Your task to perform on an android device: turn off smart reply in the gmail app Image 0: 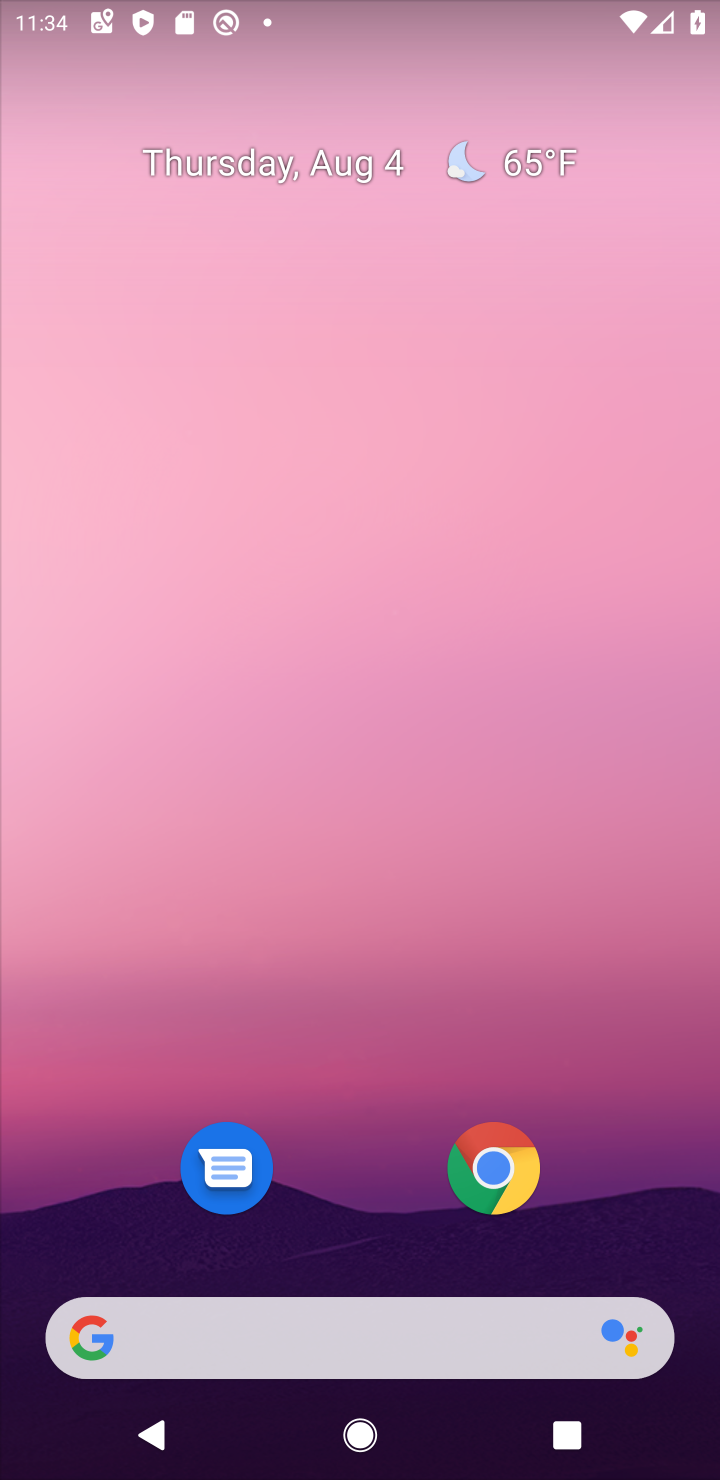
Step 0: drag from (625, 1153) to (189, 69)
Your task to perform on an android device: turn off smart reply in the gmail app Image 1: 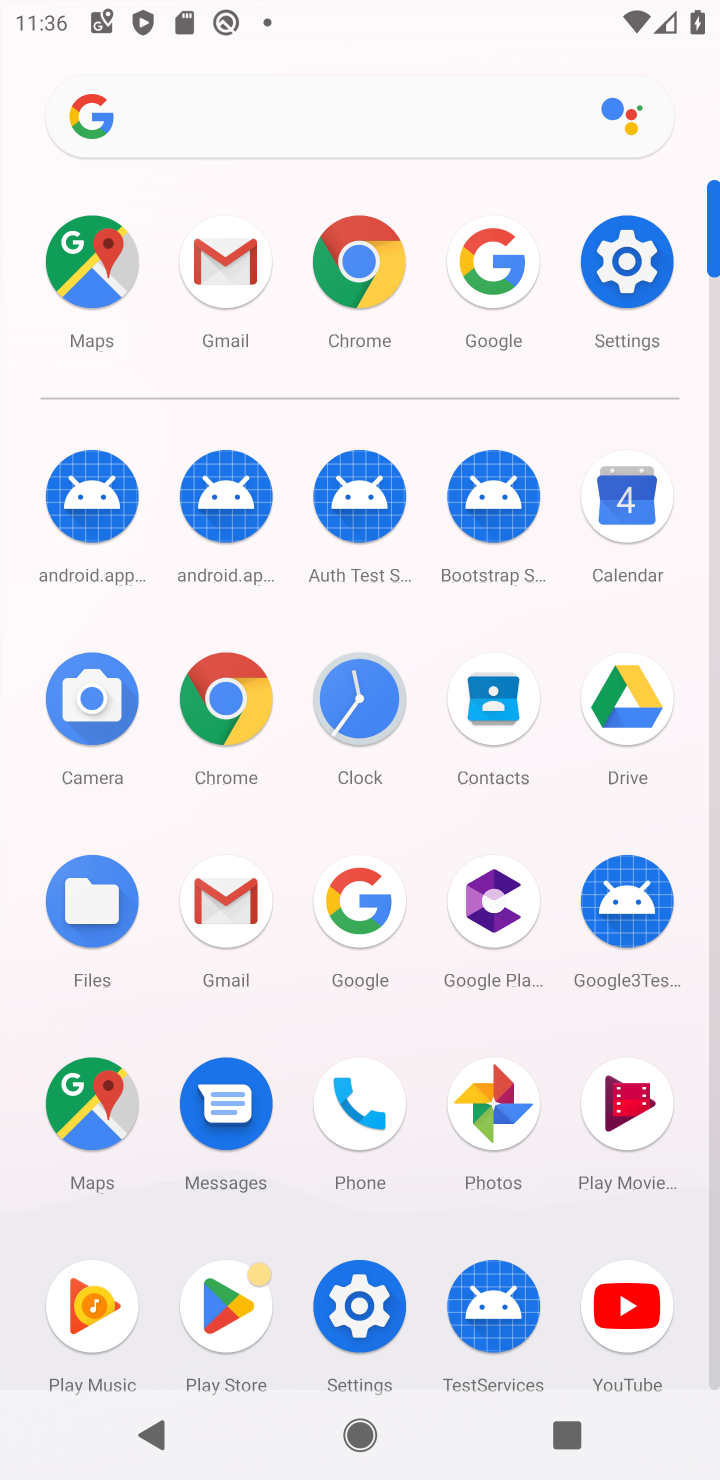
Step 1: click (199, 923)
Your task to perform on an android device: turn off smart reply in the gmail app Image 2: 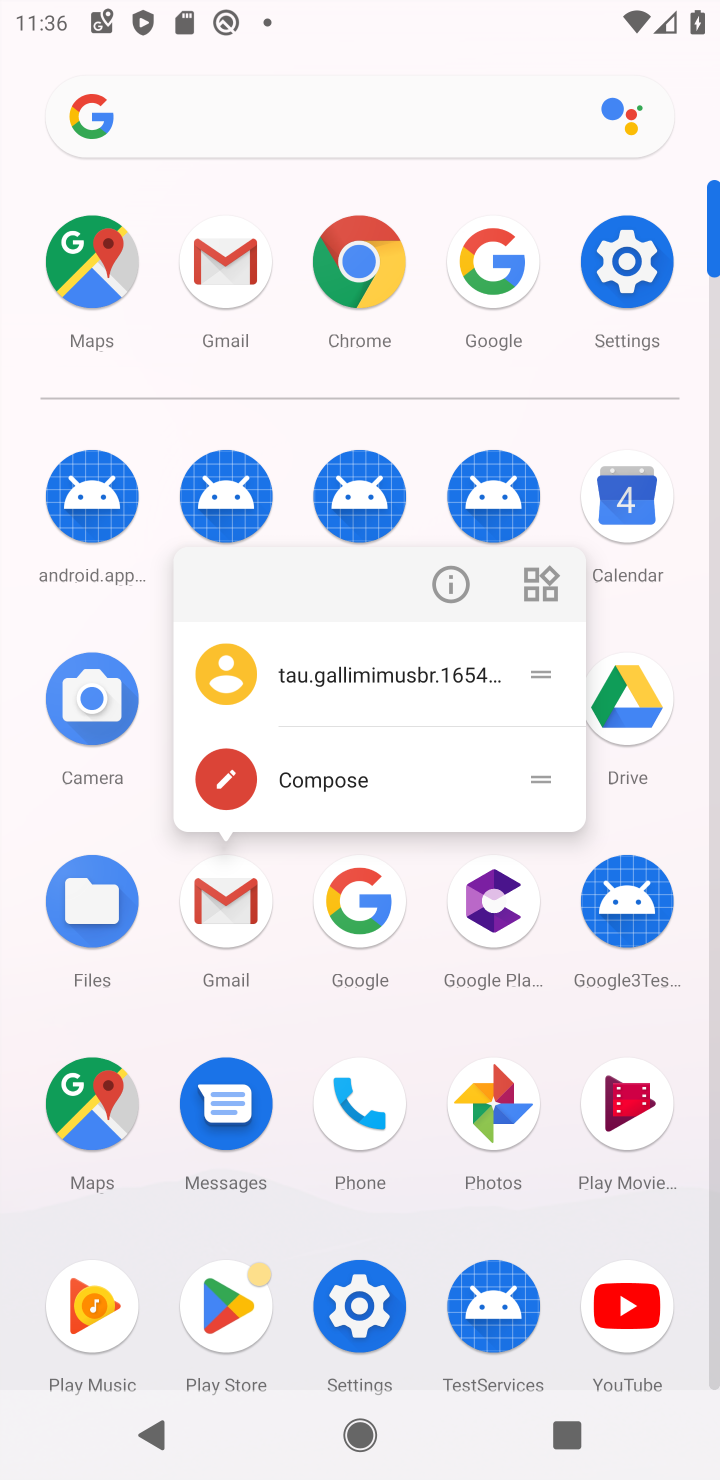
Step 2: click (199, 923)
Your task to perform on an android device: turn off smart reply in the gmail app Image 3: 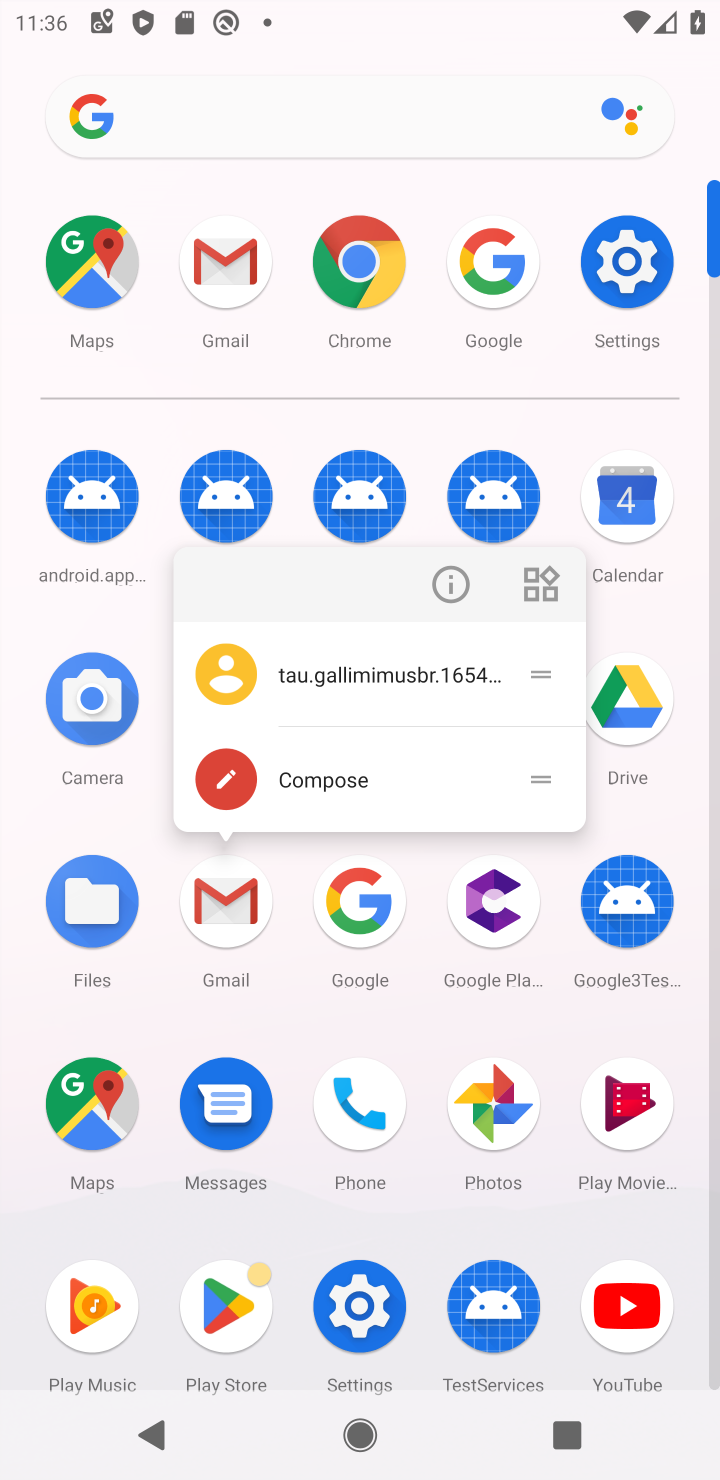
Step 3: click (199, 923)
Your task to perform on an android device: turn off smart reply in the gmail app Image 4: 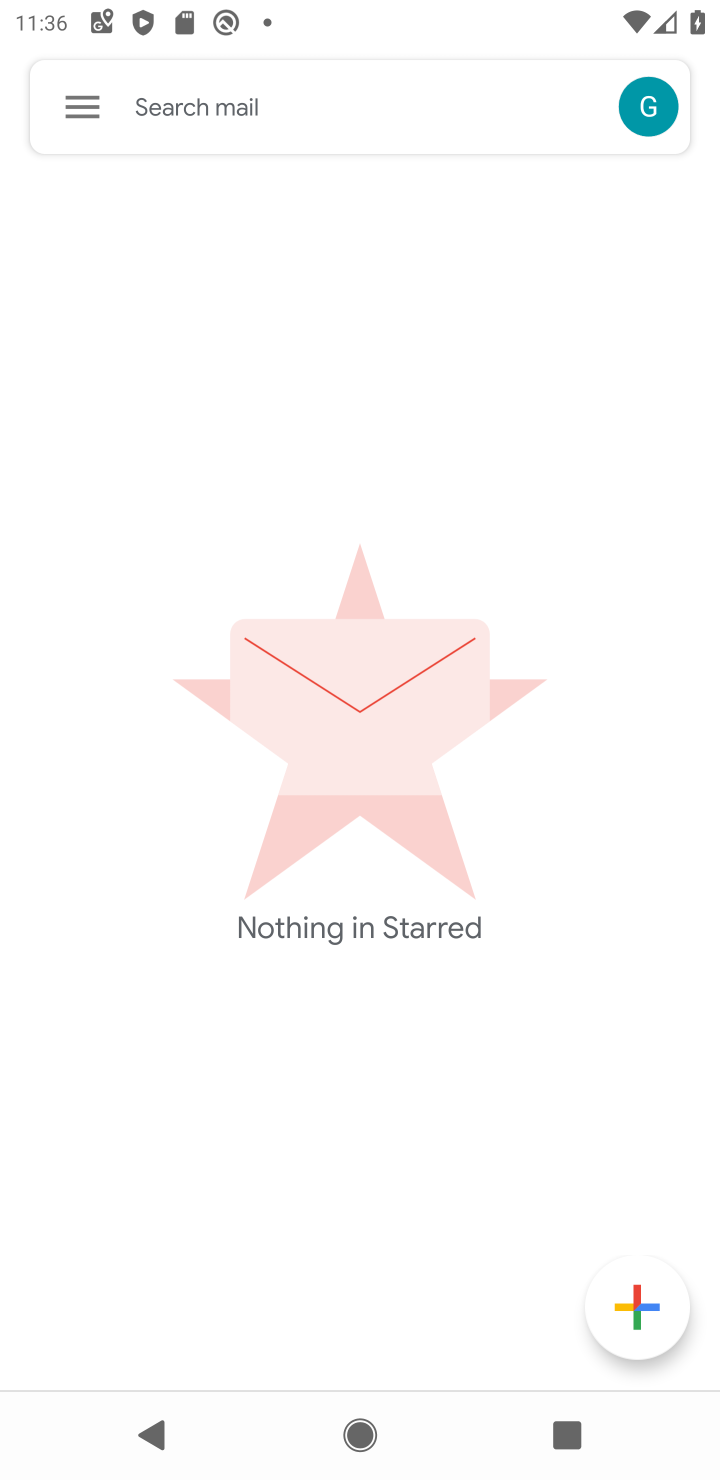
Step 4: click (77, 92)
Your task to perform on an android device: turn off smart reply in the gmail app Image 5: 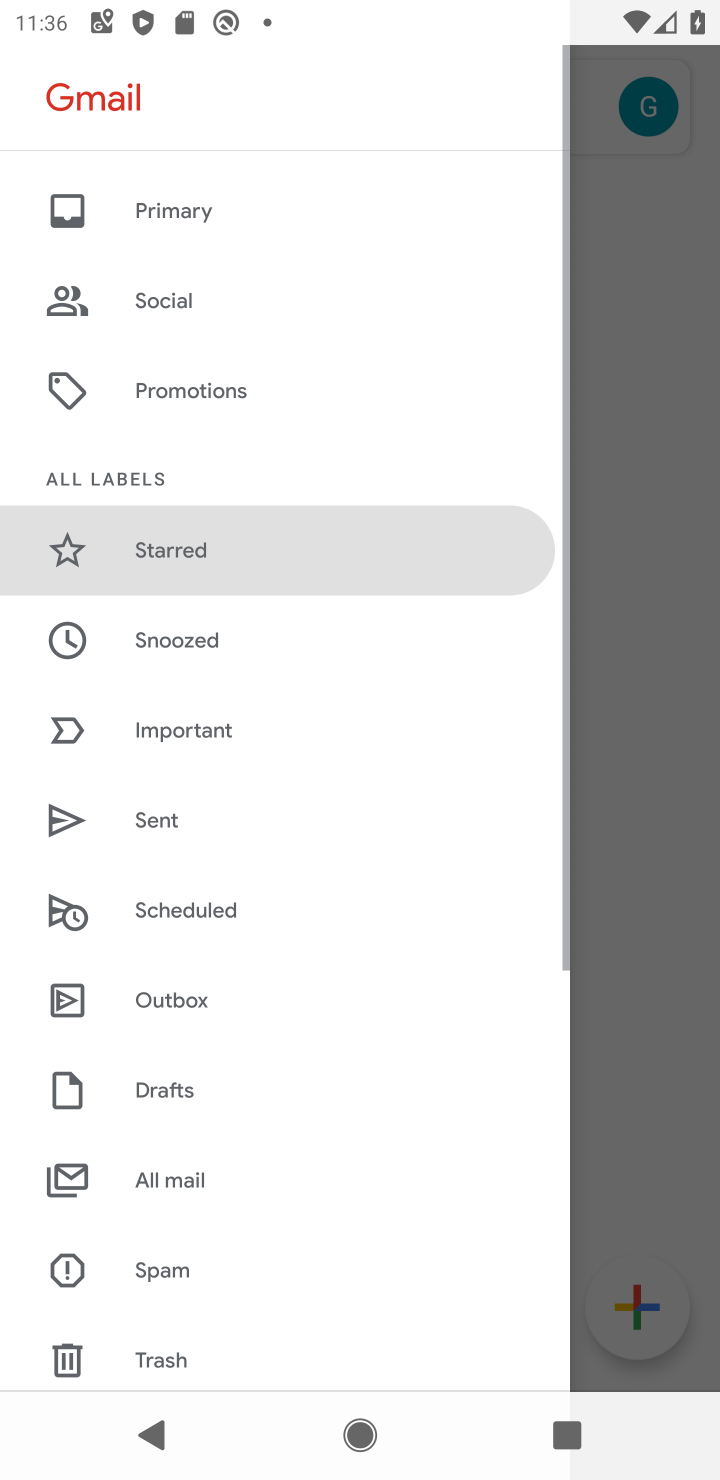
Step 5: drag from (191, 1297) to (479, 57)
Your task to perform on an android device: turn off smart reply in the gmail app Image 6: 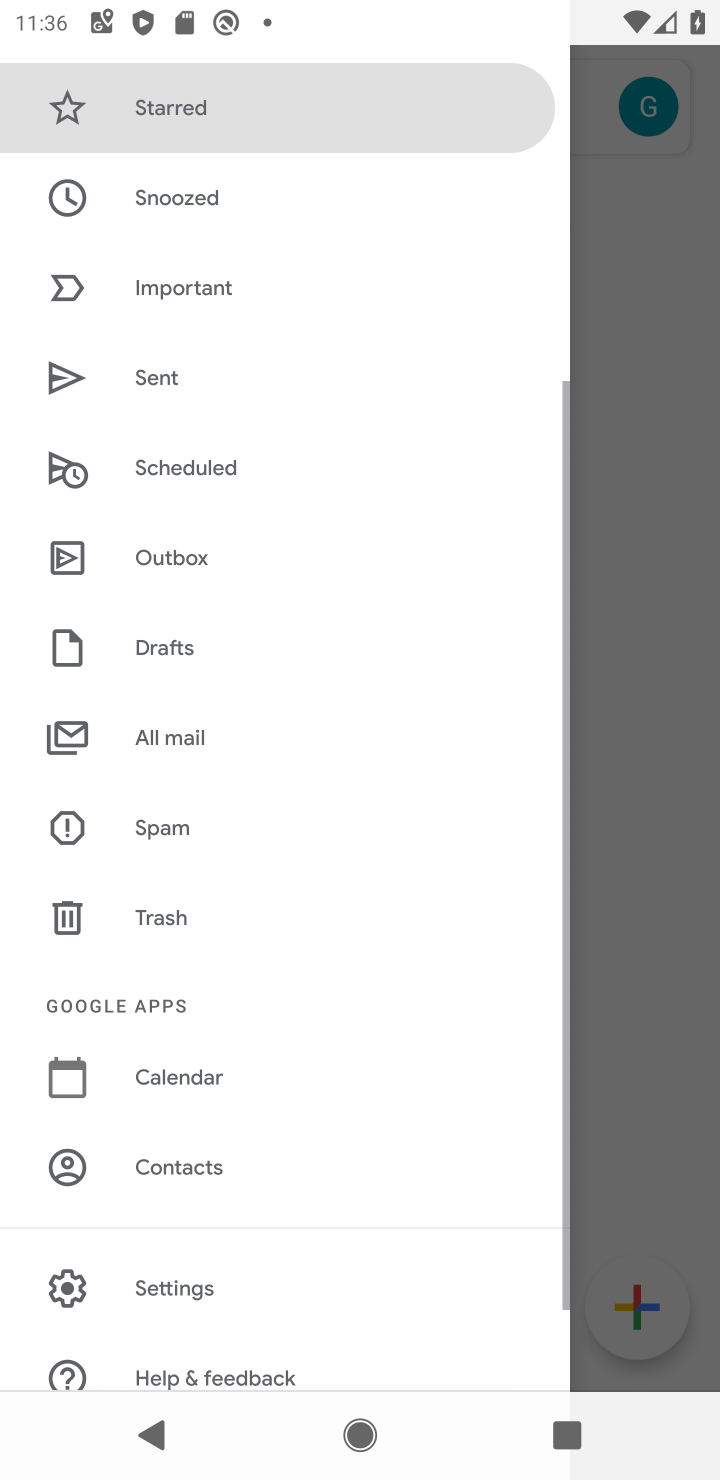
Step 6: click (168, 1237)
Your task to perform on an android device: turn off smart reply in the gmail app Image 7: 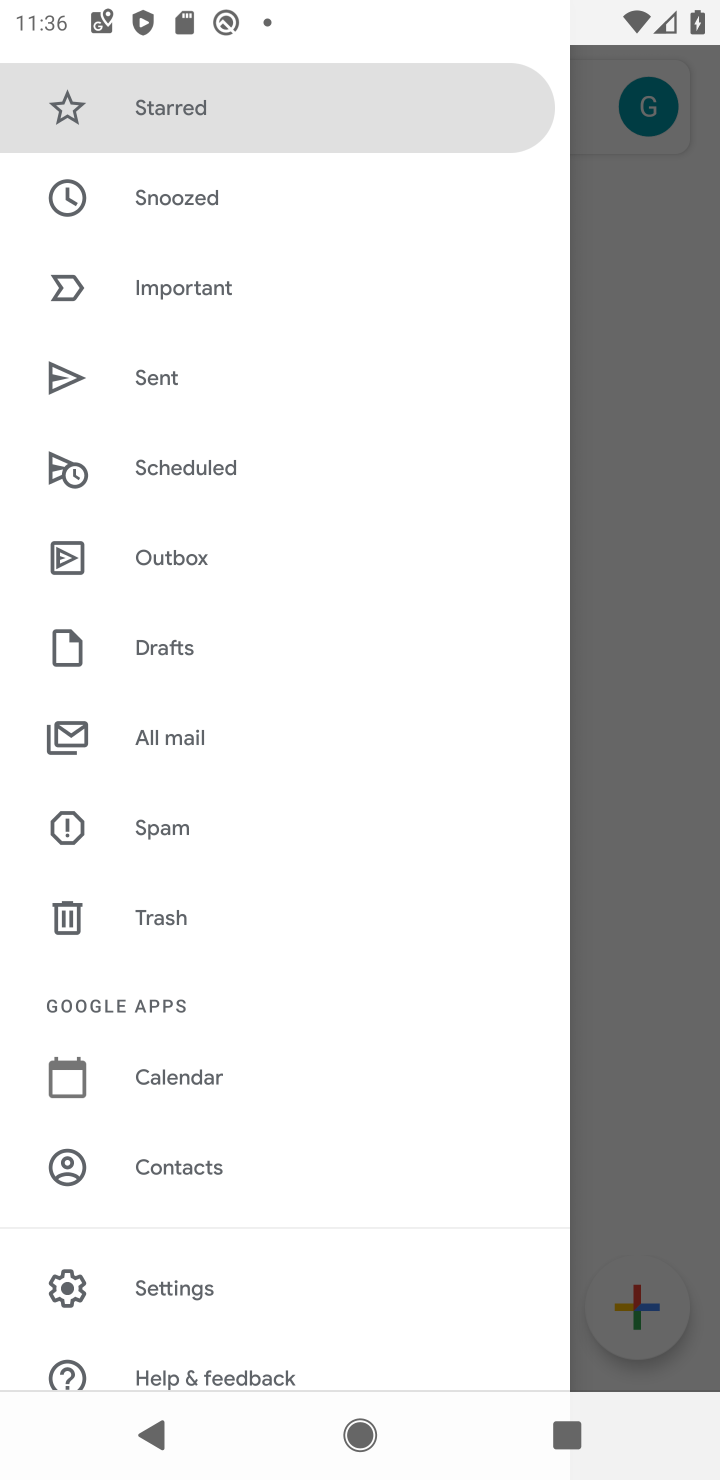
Step 7: click (205, 1298)
Your task to perform on an android device: turn off smart reply in the gmail app Image 8: 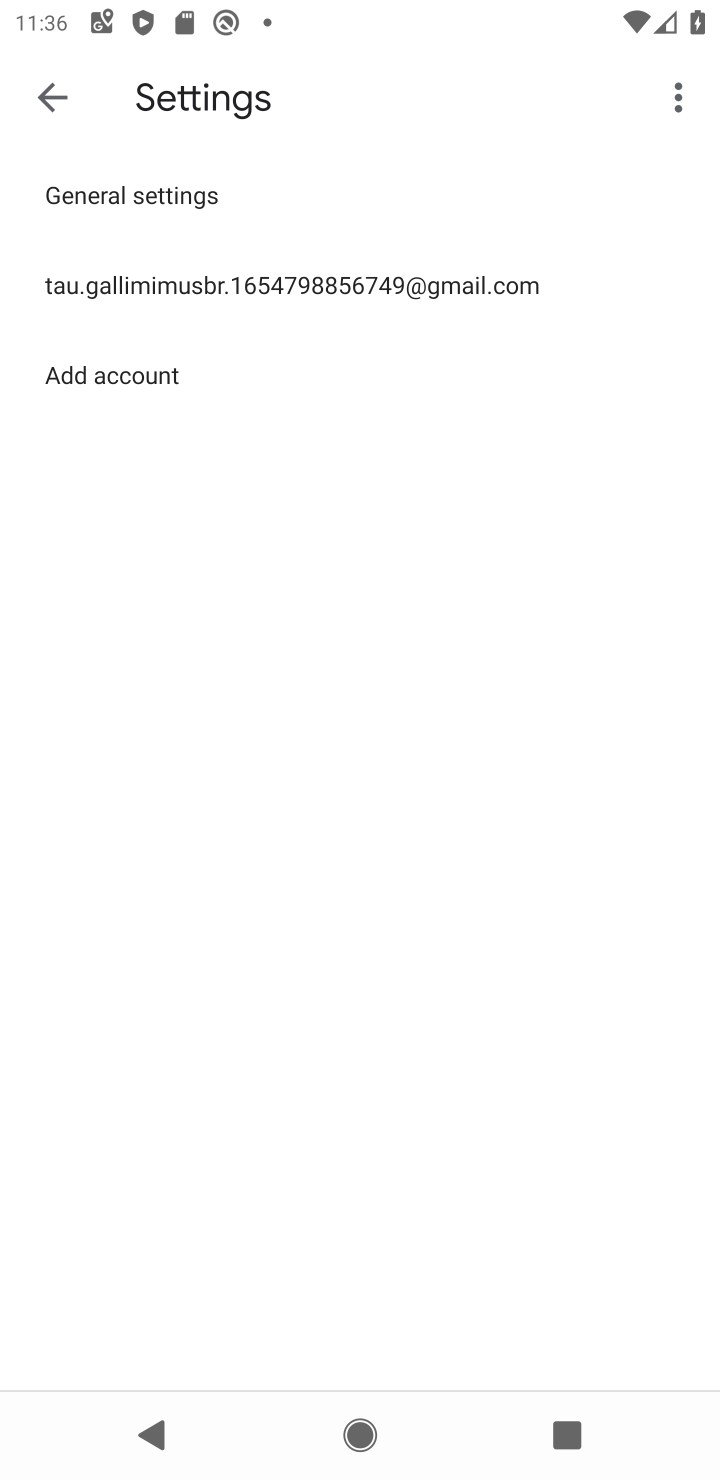
Step 8: click (380, 269)
Your task to perform on an android device: turn off smart reply in the gmail app Image 9: 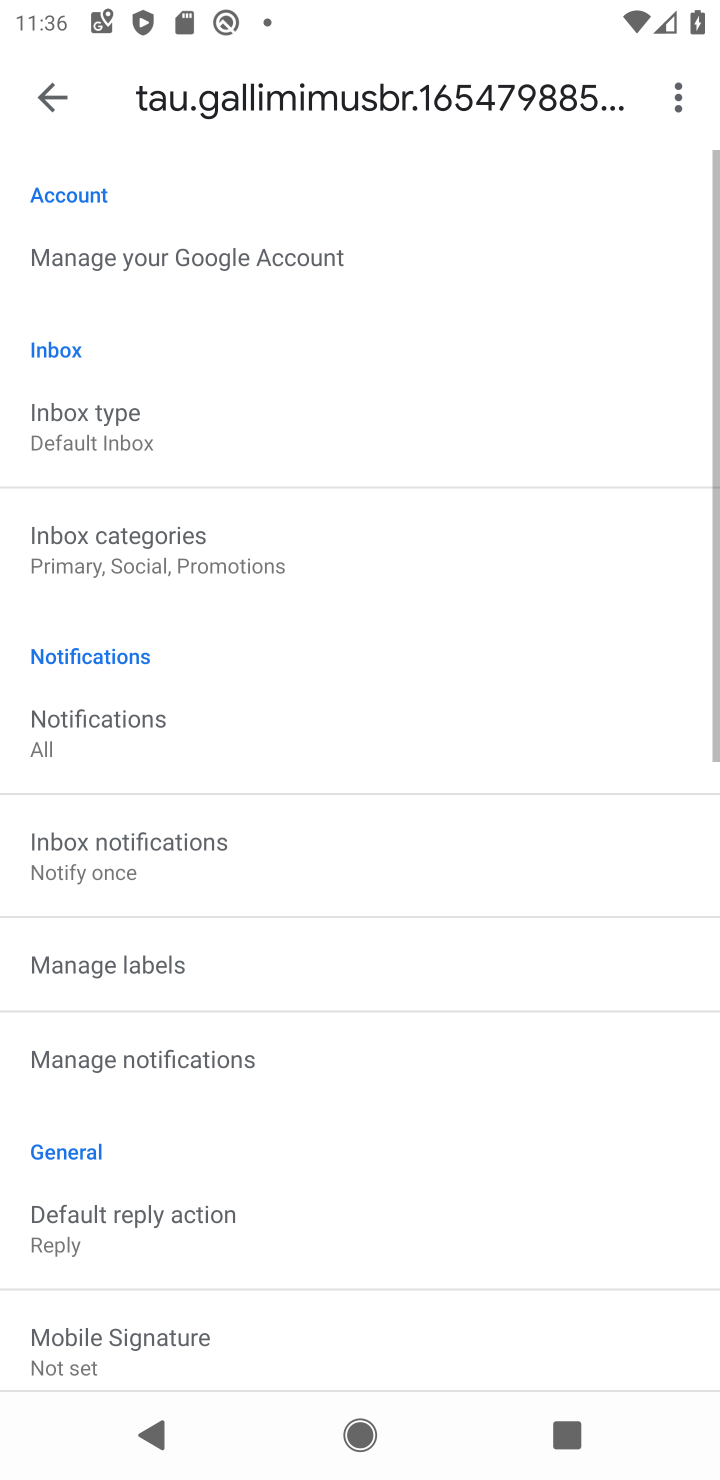
Step 9: drag from (223, 1332) to (428, 105)
Your task to perform on an android device: turn off smart reply in the gmail app Image 10: 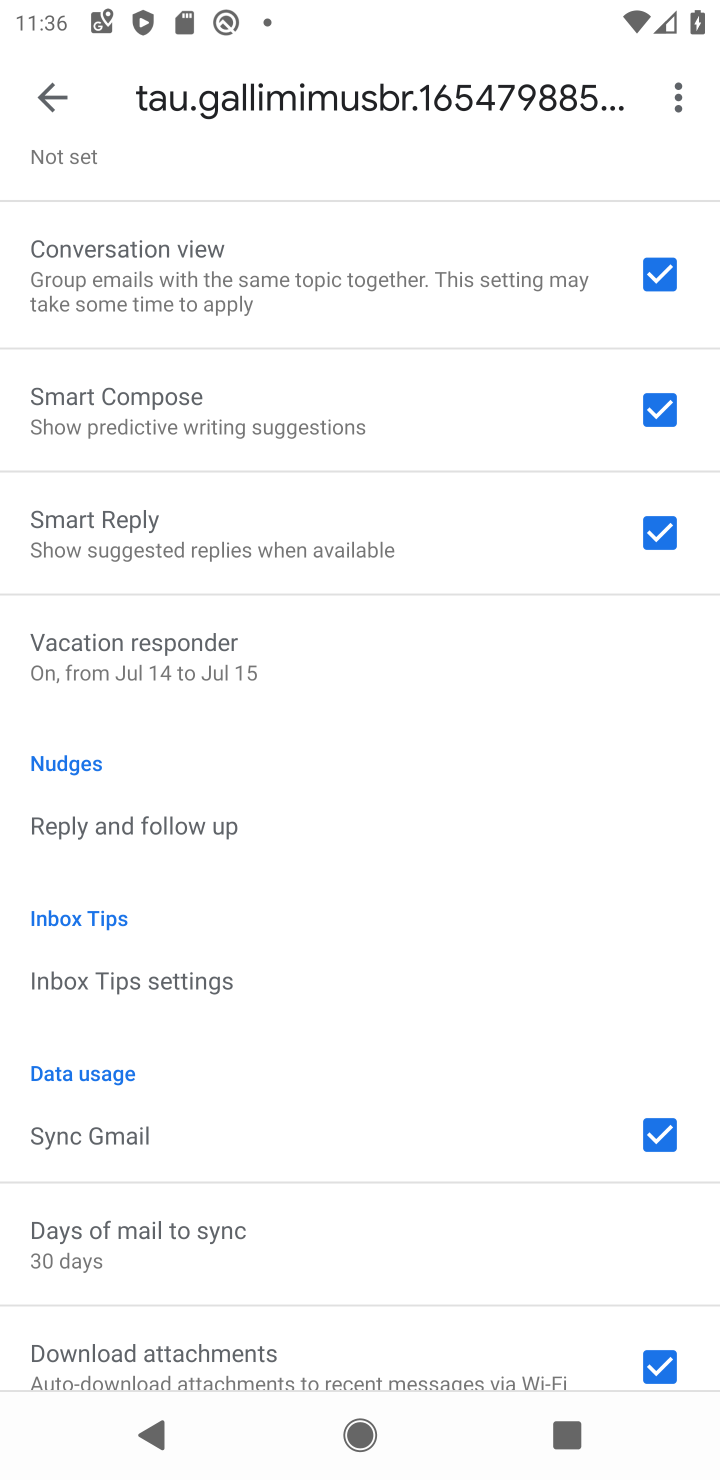
Step 10: drag from (358, 1129) to (426, 476)
Your task to perform on an android device: turn off smart reply in the gmail app Image 11: 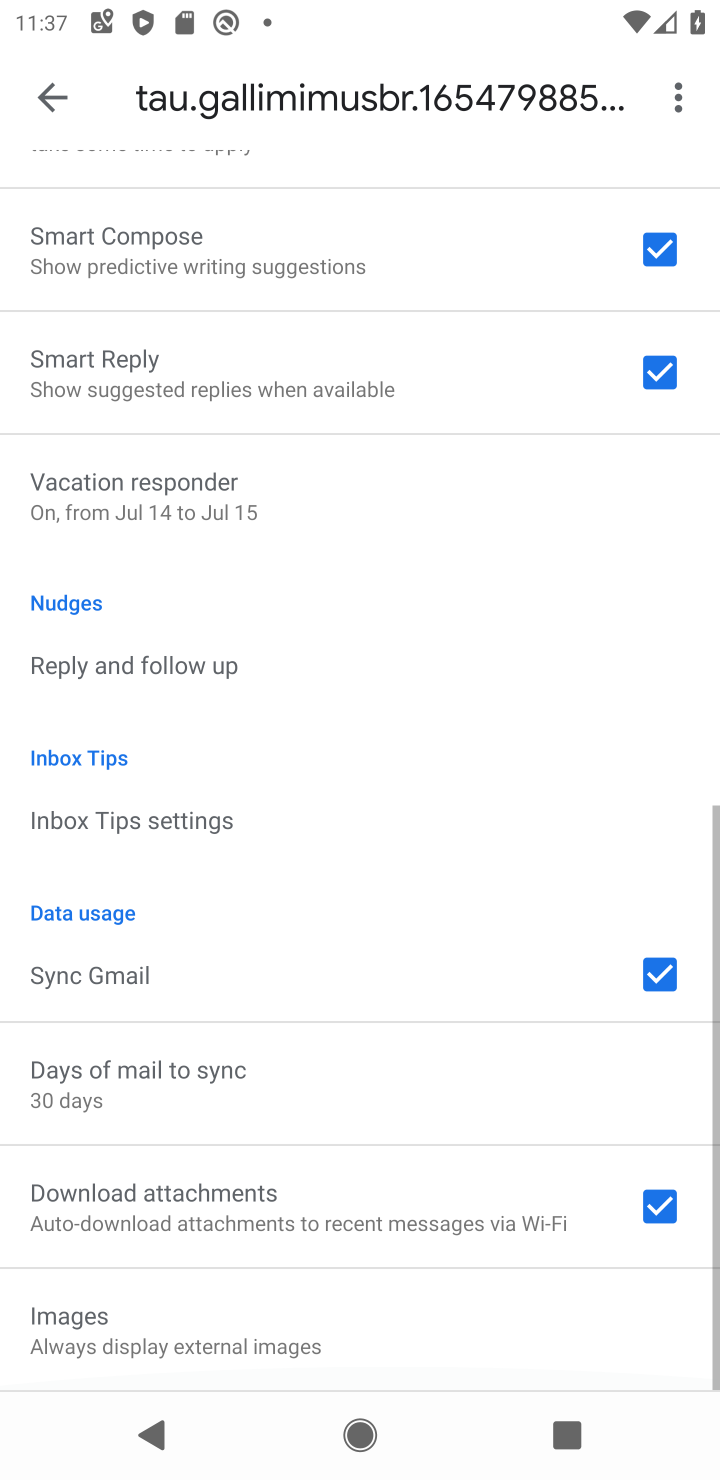
Step 11: click (519, 368)
Your task to perform on an android device: turn off smart reply in the gmail app Image 12: 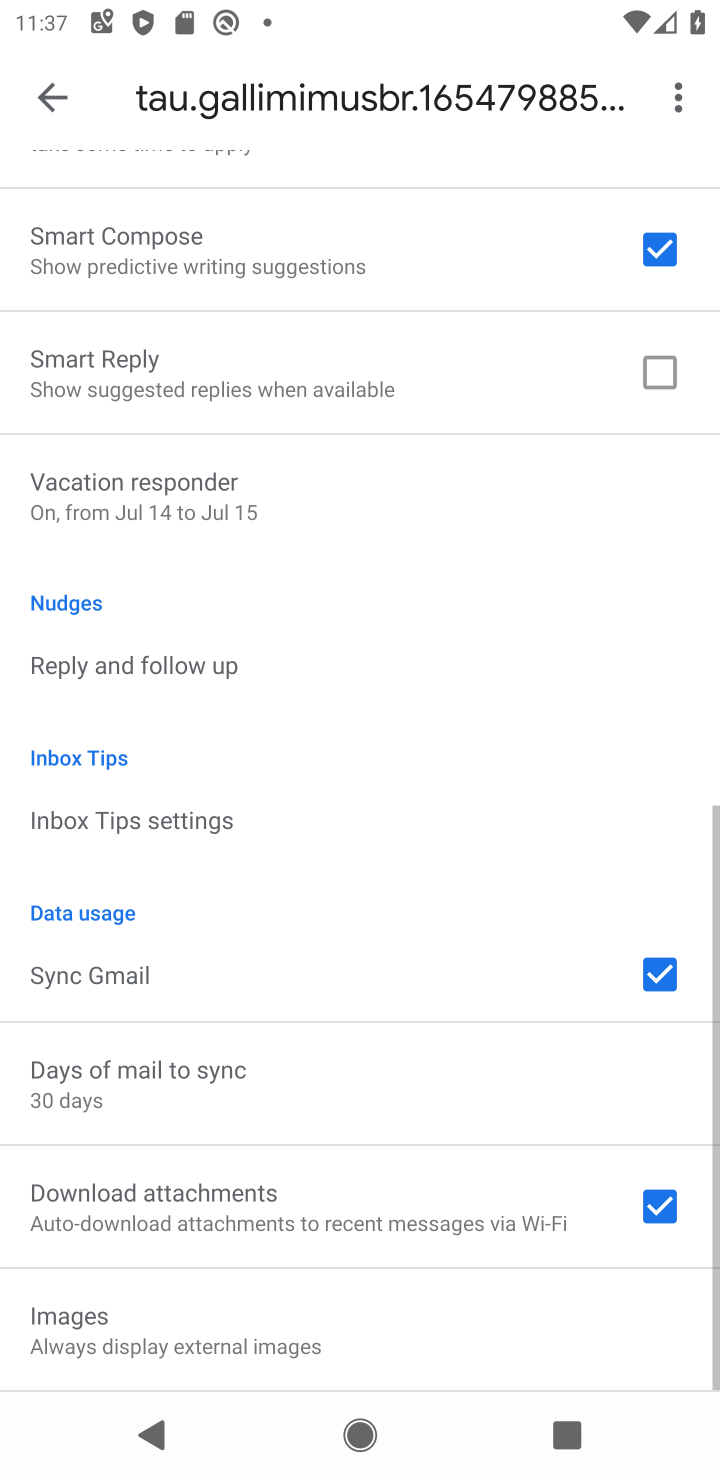
Step 12: task complete